Your task to perform on an android device: see sites visited before in the chrome app Image 0: 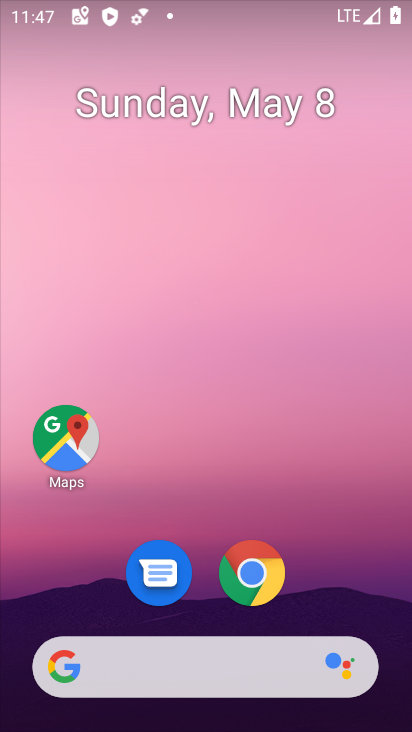
Step 0: drag from (332, 578) to (308, 10)
Your task to perform on an android device: see sites visited before in the chrome app Image 1: 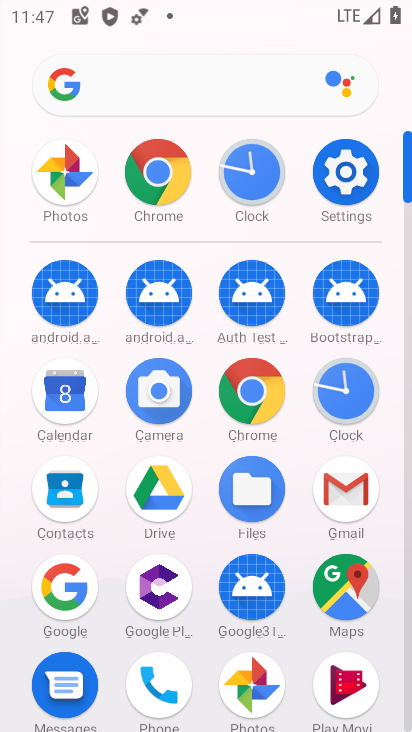
Step 1: drag from (20, 537) to (2, 252)
Your task to perform on an android device: see sites visited before in the chrome app Image 2: 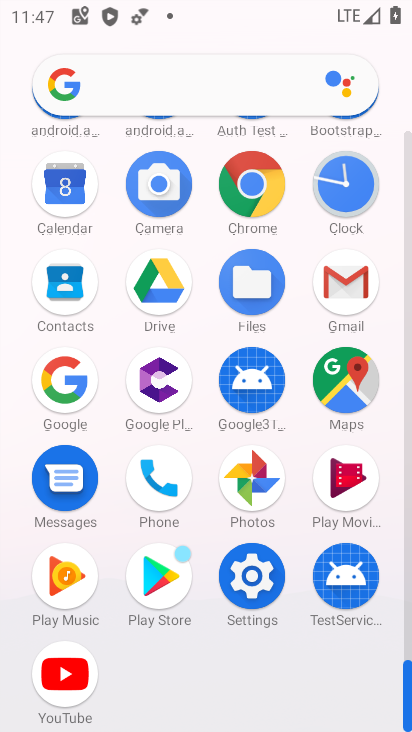
Step 2: click (249, 187)
Your task to perform on an android device: see sites visited before in the chrome app Image 3: 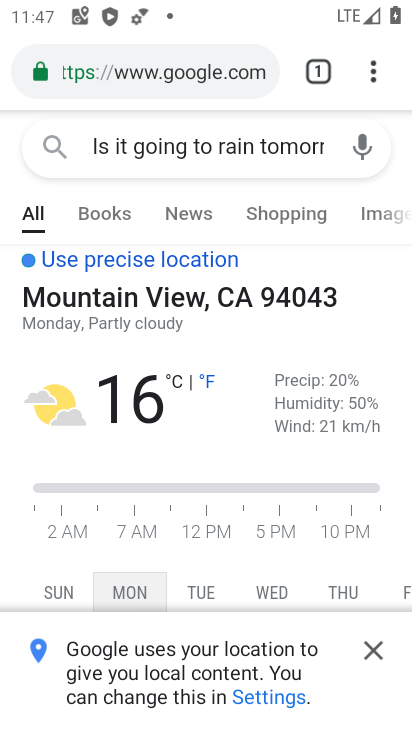
Step 3: task complete